Your task to perform on an android device: Go to calendar. Show me events next week Image 0: 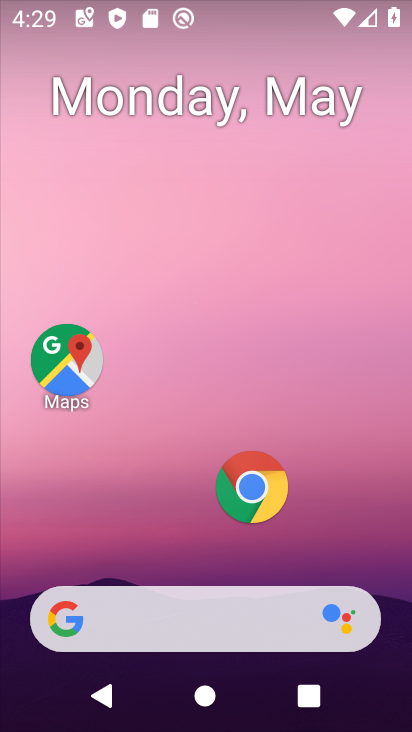
Step 0: drag from (165, 730) to (94, 65)
Your task to perform on an android device: Go to calendar. Show me events next week Image 1: 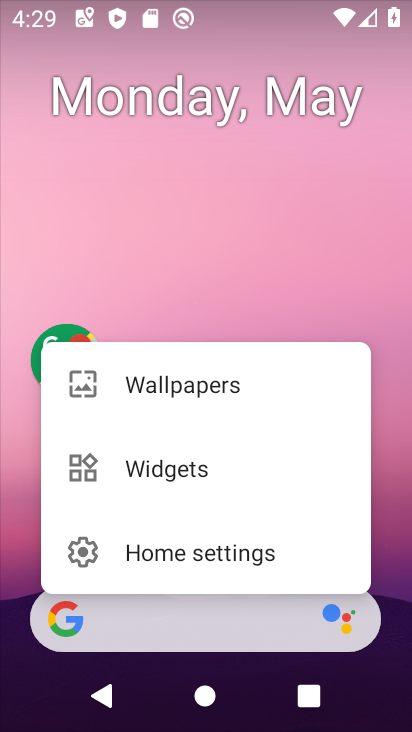
Step 1: press home button
Your task to perform on an android device: Go to calendar. Show me events next week Image 2: 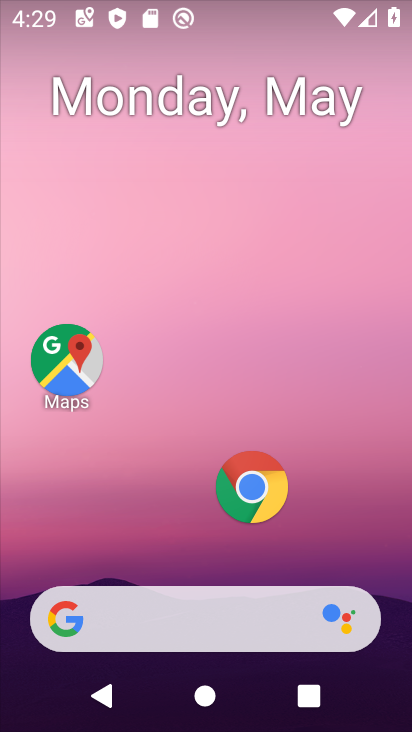
Step 2: drag from (145, 710) to (129, 7)
Your task to perform on an android device: Go to calendar. Show me events next week Image 3: 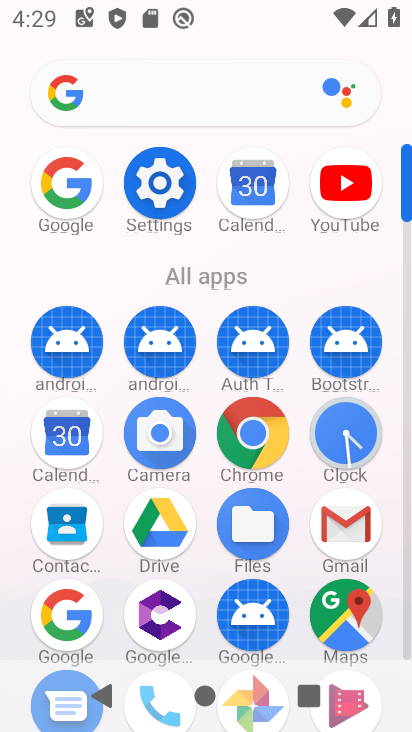
Step 3: click (255, 192)
Your task to perform on an android device: Go to calendar. Show me events next week Image 4: 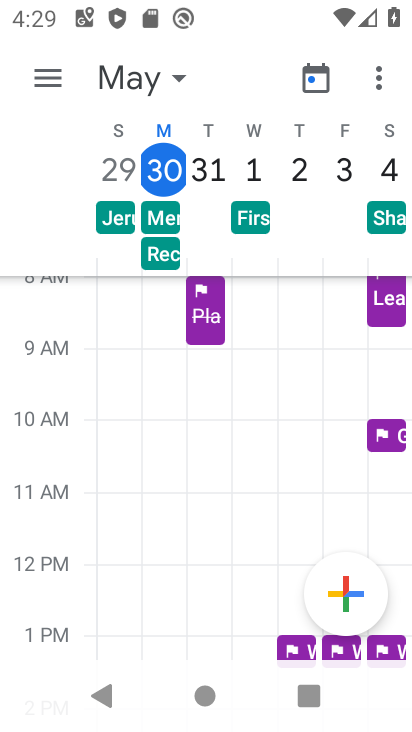
Step 4: click (51, 81)
Your task to perform on an android device: Go to calendar. Show me events next week Image 5: 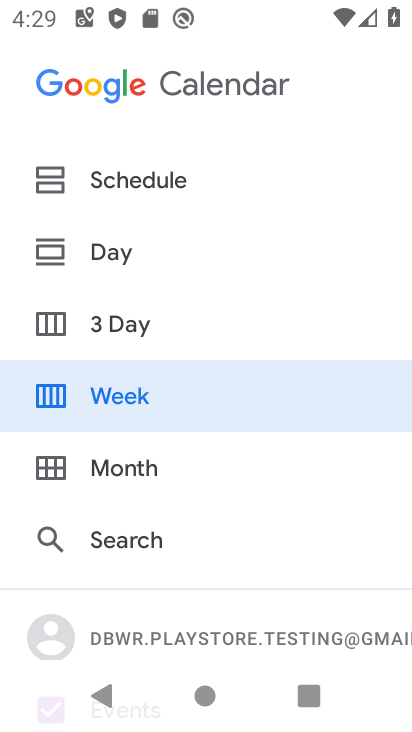
Step 5: drag from (140, 529) to (162, 120)
Your task to perform on an android device: Go to calendar. Show me events next week Image 6: 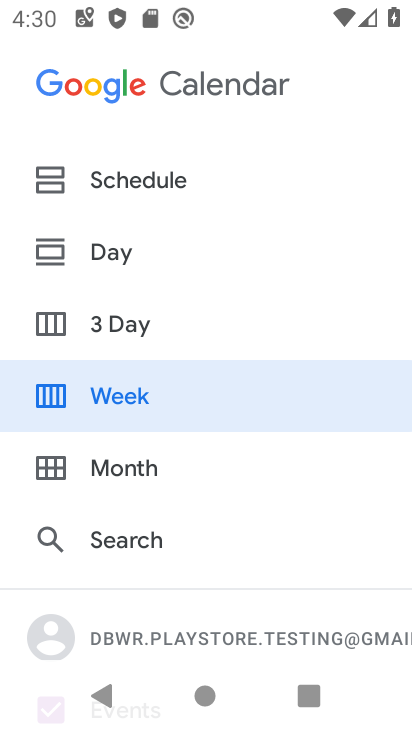
Step 6: drag from (141, 647) to (177, 172)
Your task to perform on an android device: Go to calendar. Show me events next week Image 7: 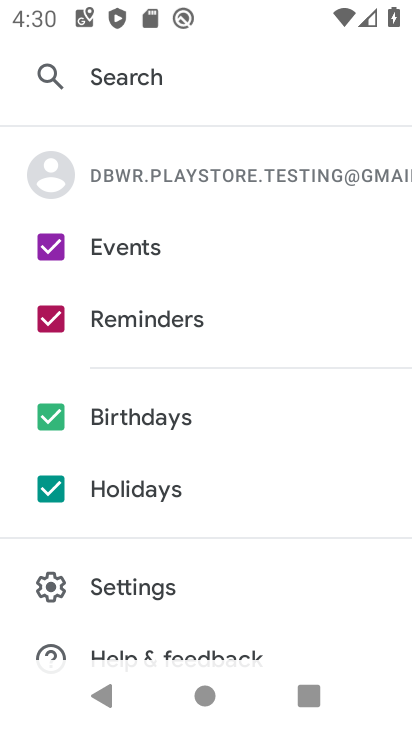
Step 7: click (57, 493)
Your task to perform on an android device: Go to calendar. Show me events next week Image 8: 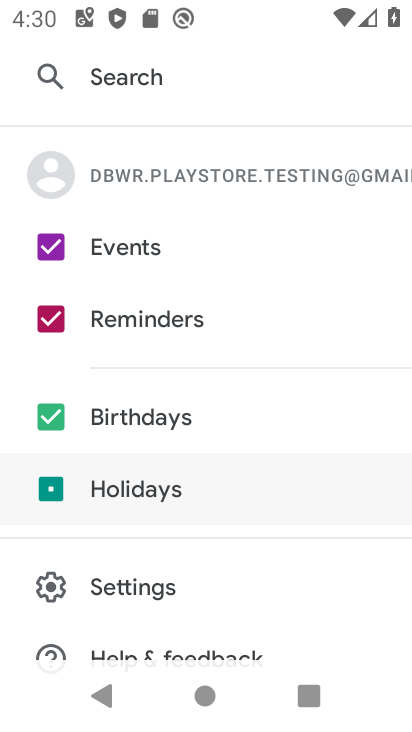
Step 8: click (56, 419)
Your task to perform on an android device: Go to calendar. Show me events next week Image 9: 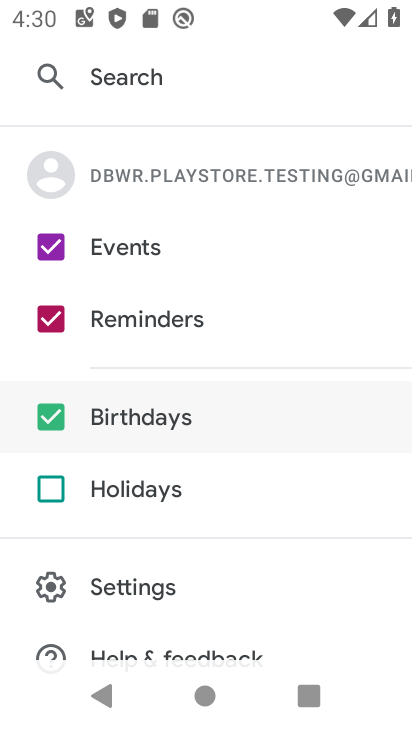
Step 9: click (54, 318)
Your task to perform on an android device: Go to calendar. Show me events next week Image 10: 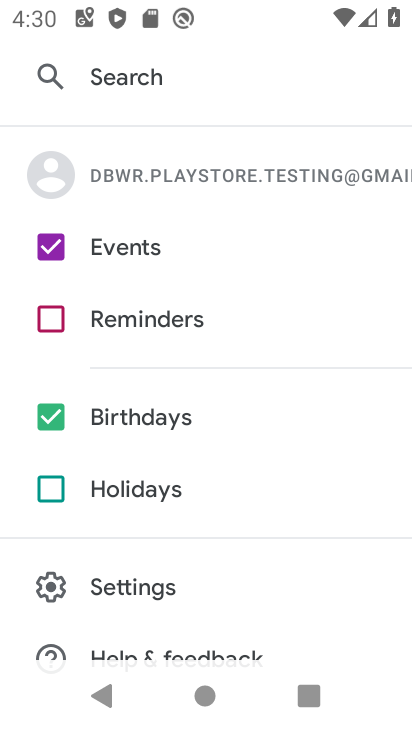
Step 10: click (55, 420)
Your task to perform on an android device: Go to calendar. Show me events next week Image 11: 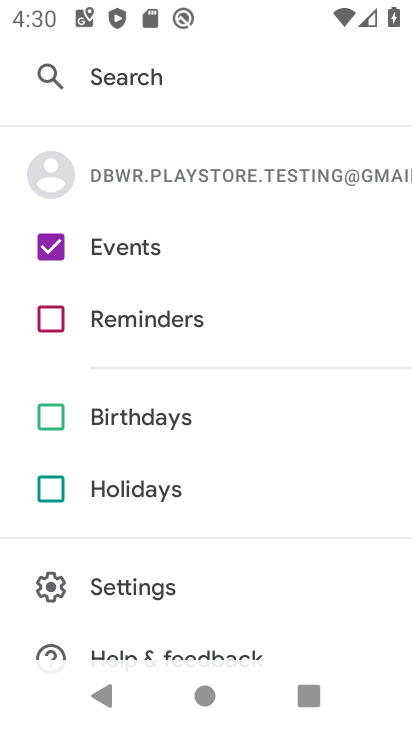
Step 11: drag from (184, 603) to (181, 682)
Your task to perform on an android device: Go to calendar. Show me events next week Image 12: 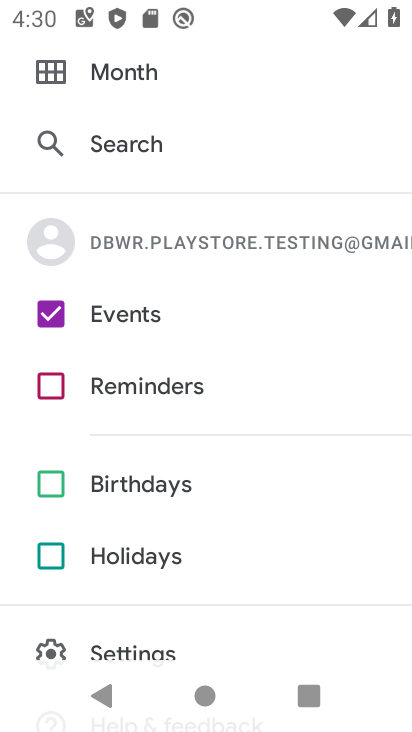
Step 12: drag from (280, 139) to (206, 666)
Your task to perform on an android device: Go to calendar. Show me events next week Image 13: 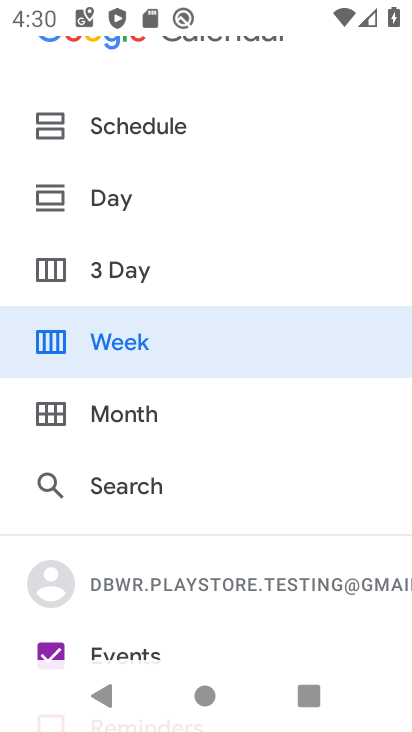
Step 13: drag from (224, 112) to (271, 659)
Your task to perform on an android device: Go to calendar. Show me events next week Image 14: 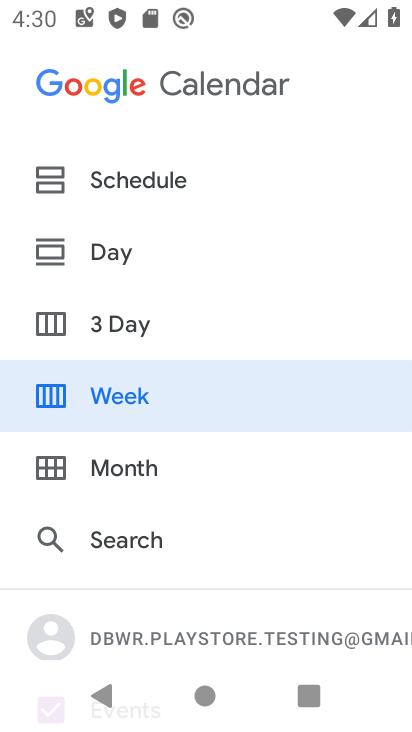
Step 14: click (105, 398)
Your task to perform on an android device: Go to calendar. Show me events next week Image 15: 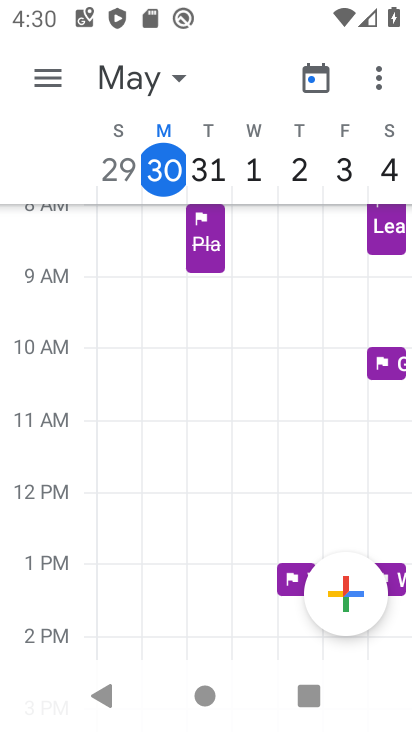
Step 15: task complete